Your task to perform on an android device: check android version Image 0: 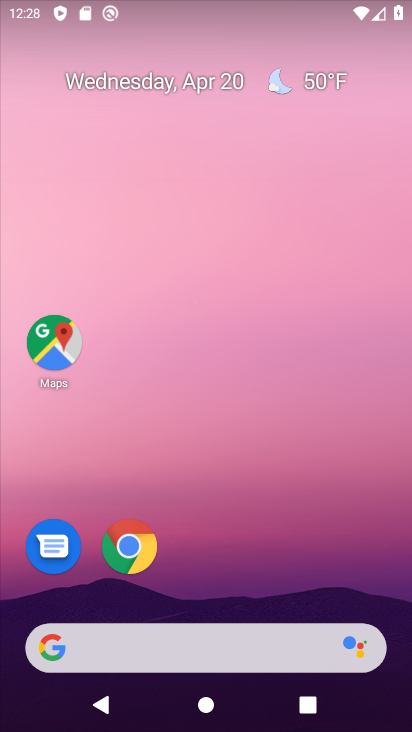
Step 0: drag from (206, 475) to (271, 11)
Your task to perform on an android device: check android version Image 1: 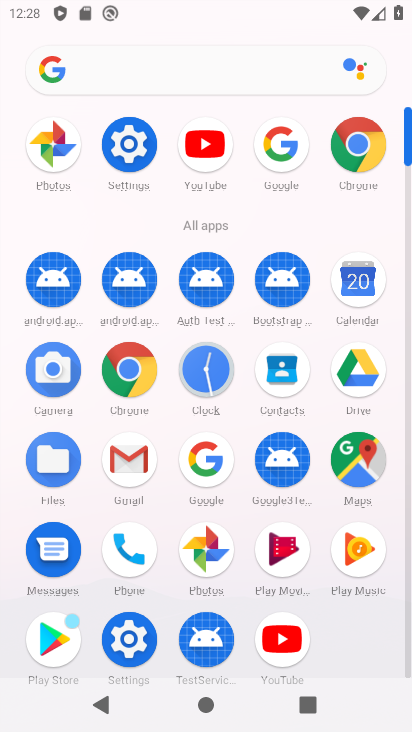
Step 1: click (133, 135)
Your task to perform on an android device: check android version Image 2: 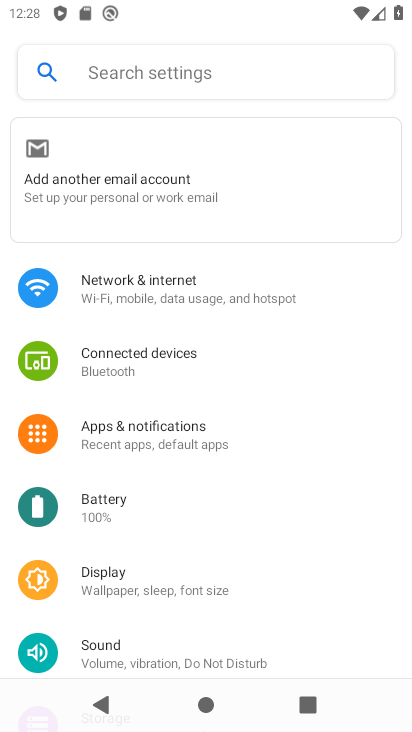
Step 2: drag from (163, 631) to (254, 61)
Your task to perform on an android device: check android version Image 3: 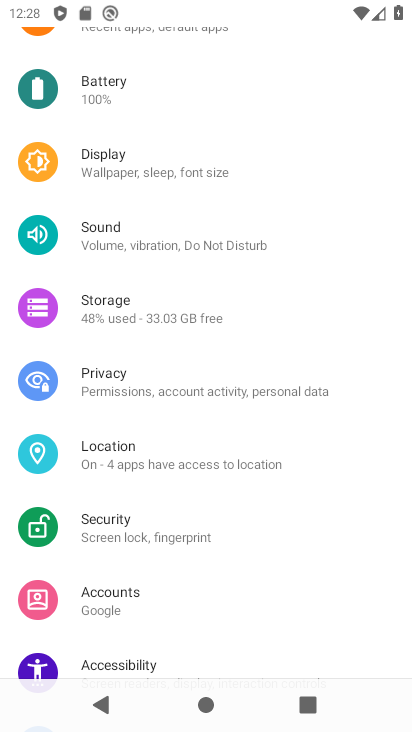
Step 3: drag from (152, 609) to (364, 0)
Your task to perform on an android device: check android version Image 4: 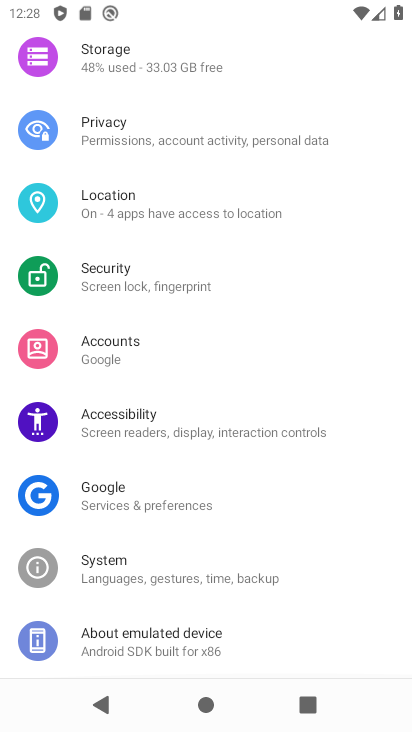
Step 4: drag from (198, 584) to (242, 7)
Your task to perform on an android device: check android version Image 5: 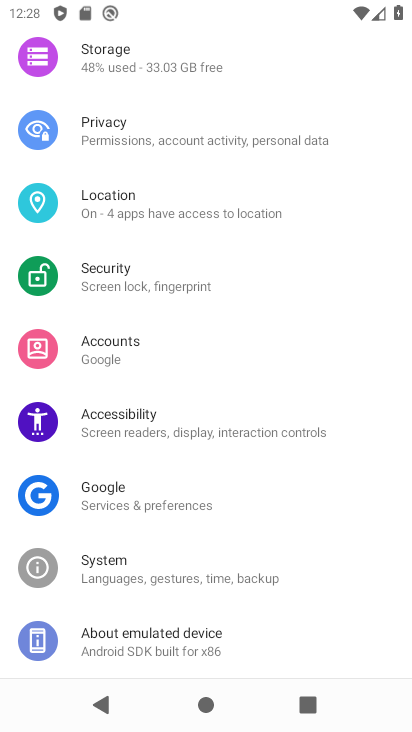
Step 5: click (166, 632)
Your task to perform on an android device: check android version Image 6: 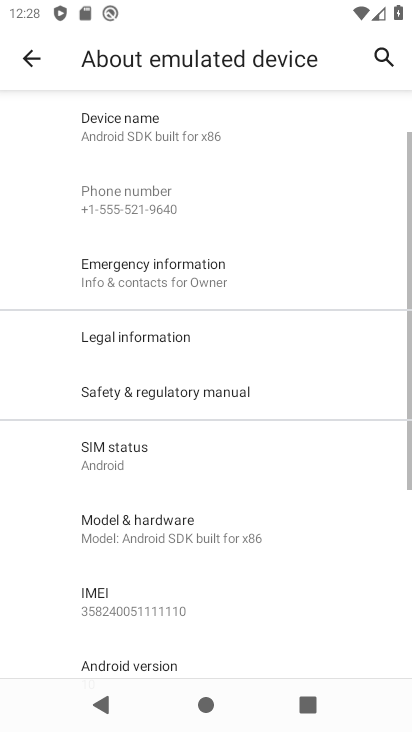
Step 6: drag from (204, 597) to (325, 65)
Your task to perform on an android device: check android version Image 7: 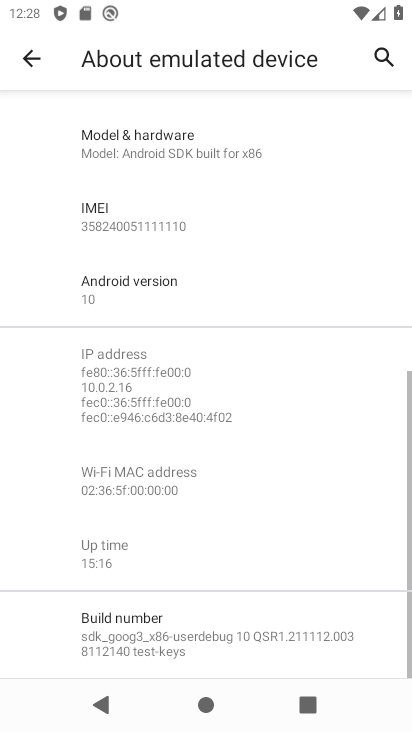
Step 7: click (81, 291)
Your task to perform on an android device: check android version Image 8: 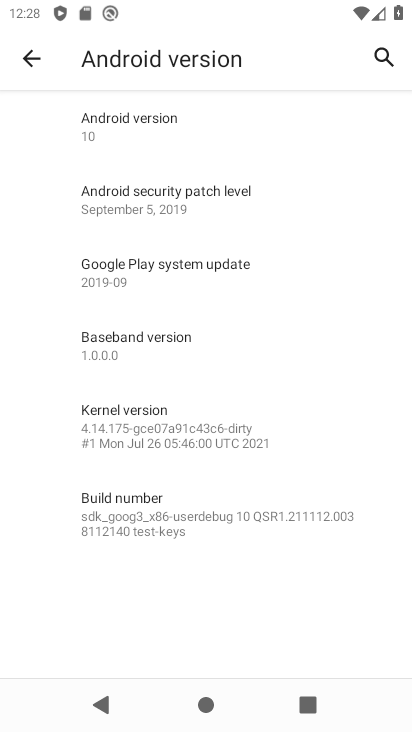
Step 8: task complete